Your task to perform on an android device: see tabs open on other devices in the chrome app Image 0: 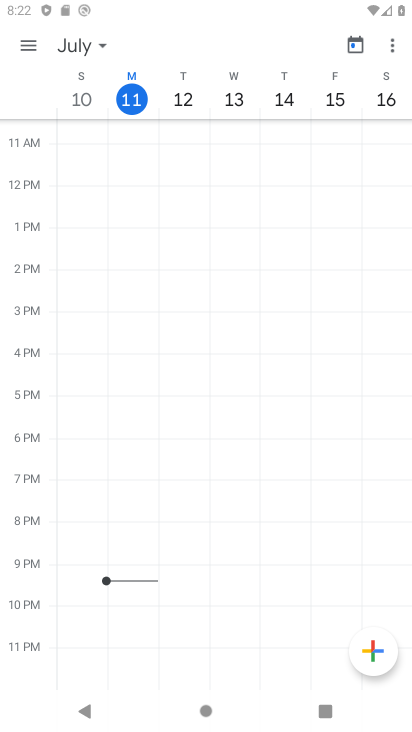
Step 0: press home button
Your task to perform on an android device: see tabs open on other devices in the chrome app Image 1: 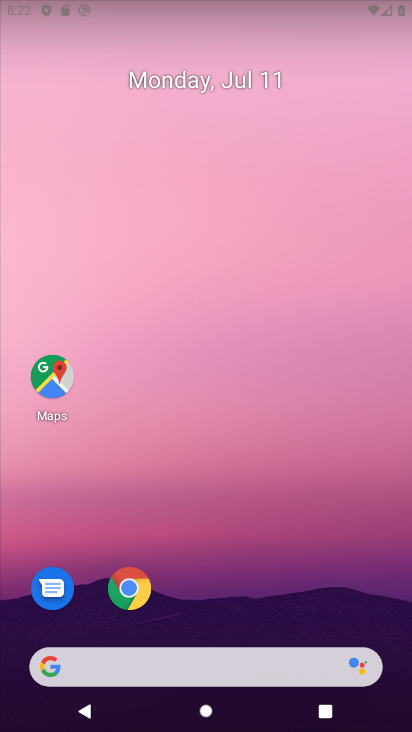
Step 1: click (144, 582)
Your task to perform on an android device: see tabs open on other devices in the chrome app Image 2: 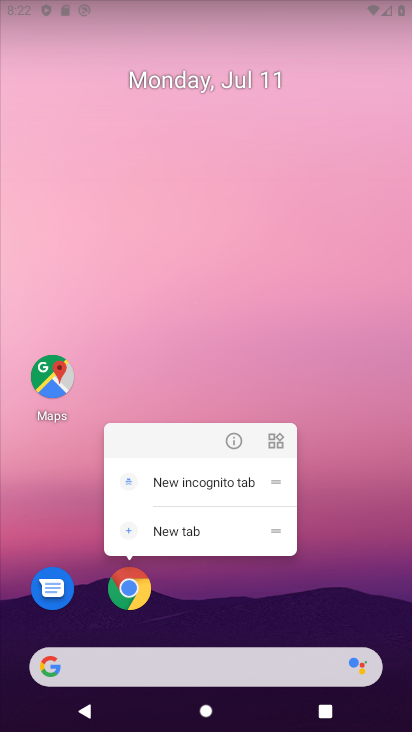
Step 2: click (131, 581)
Your task to perform on an android device: see tabs open on other devices in the chrome app Image 3: 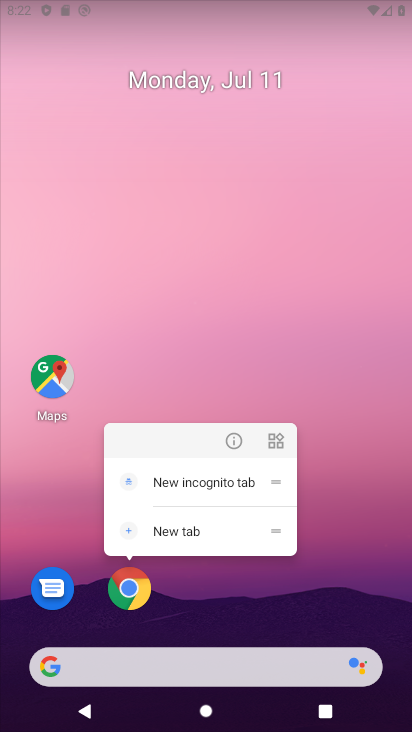
Step 3: click (131, 581)
Your task to perform on an android device: see tabs open on other devices in the chrome app Image 4: 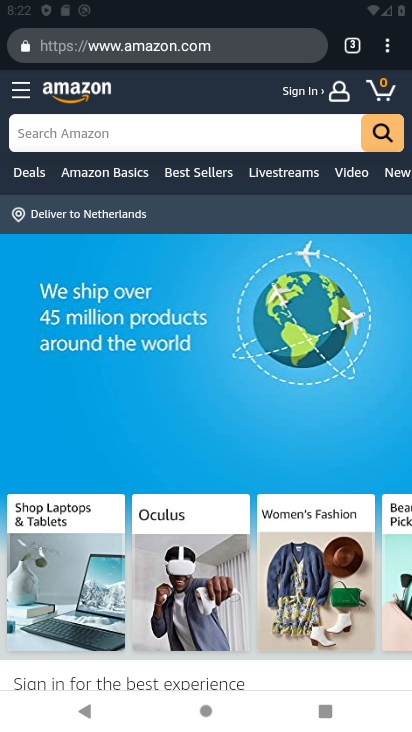
Step 4: click (385, 44)
Your task to perform on an android device: see tabs open on other devices in the chrome app Image 5: 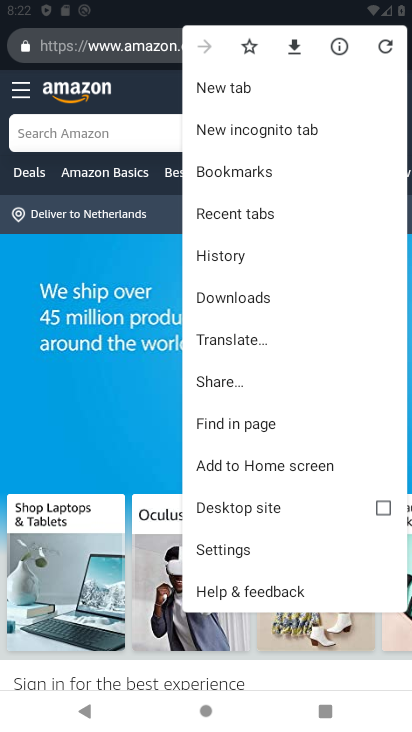
Step 5: click (270, 212)
Your task to perform on an android device: see tabs open on other devices in the chrome app Image 6: 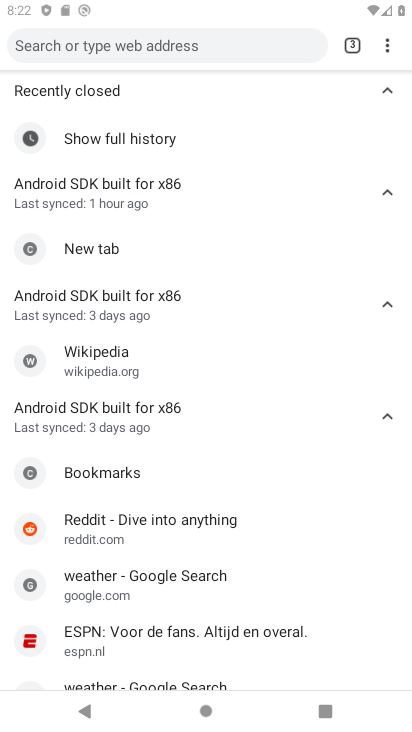
Step 6: task complete